Your task to perform on an android device: Open Amazon Image 0: 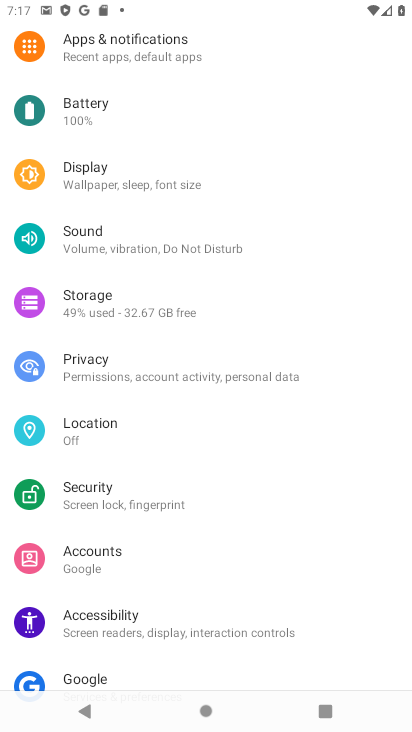
Step 0: press home button
Your task to perform on an android device: Open Amazon Image 1: 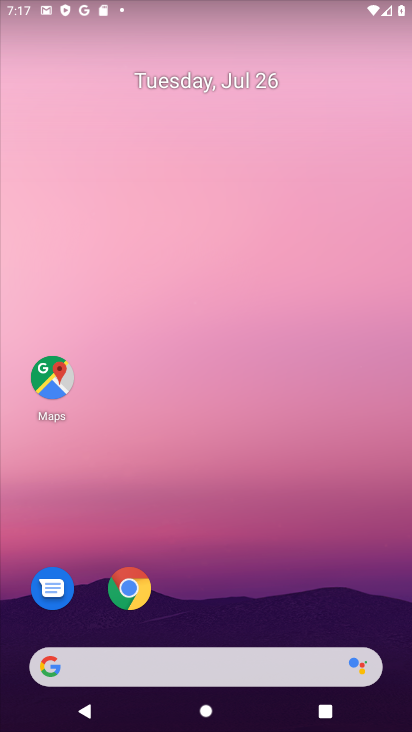
Step 1: drag from (205, 624) to (265, 98)
Your task to perform on an android device: Open Amazon Image 2: 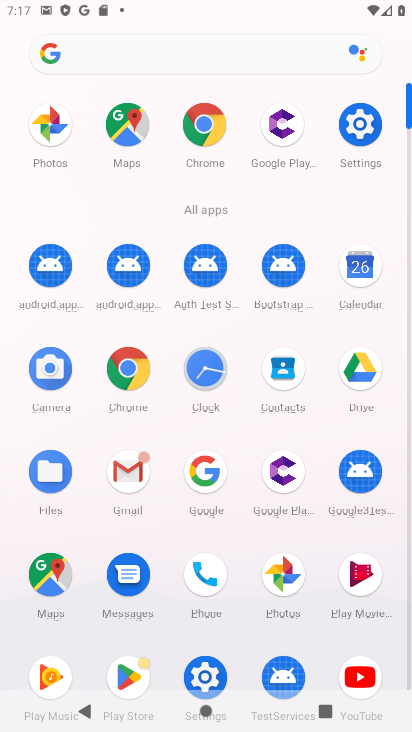
Step 2: click (138, 385)
Your task to perform on an android device: Open Amazon Image 3: 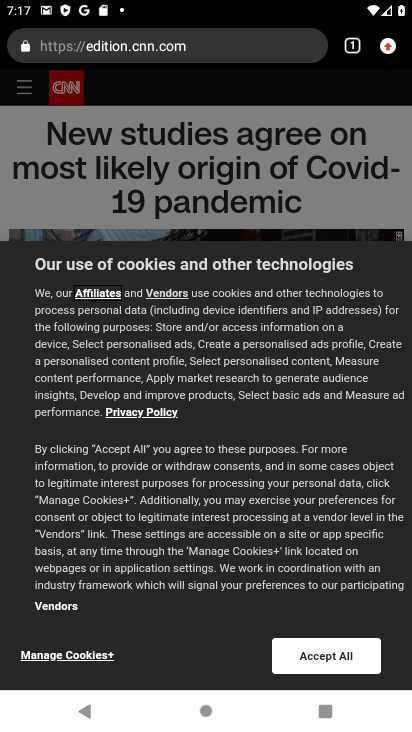
Step 3: click (210, 46)
Your task to perform on an android device: Open Amazon Image 4: 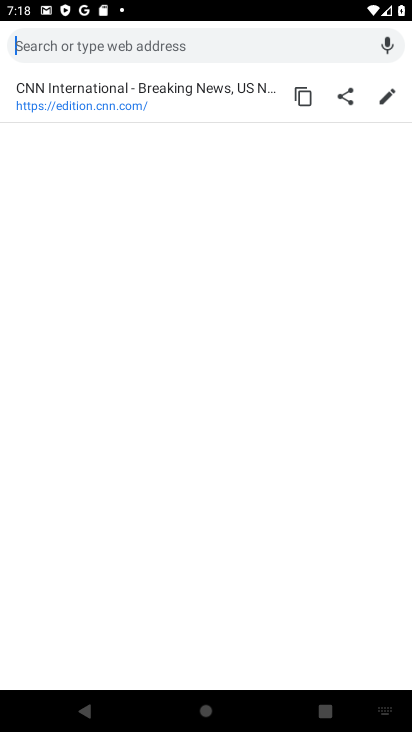
Step 4: type "amazon"
Your task to perform on an android device: Open Amazon Image 5: 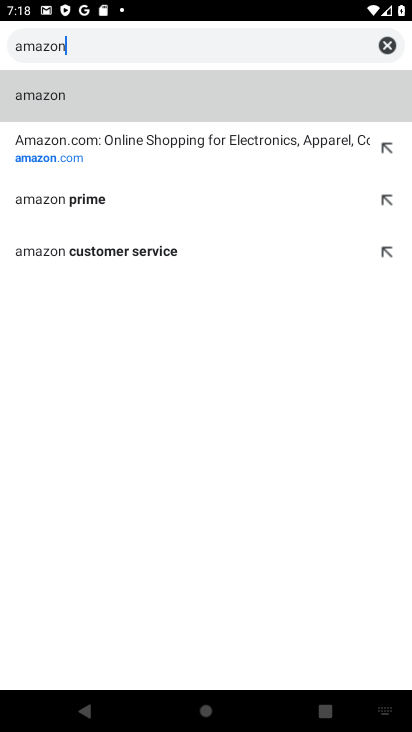
Step 5: click (157, 148)
Your task to perform on an android device: Open Amazon Image 6: 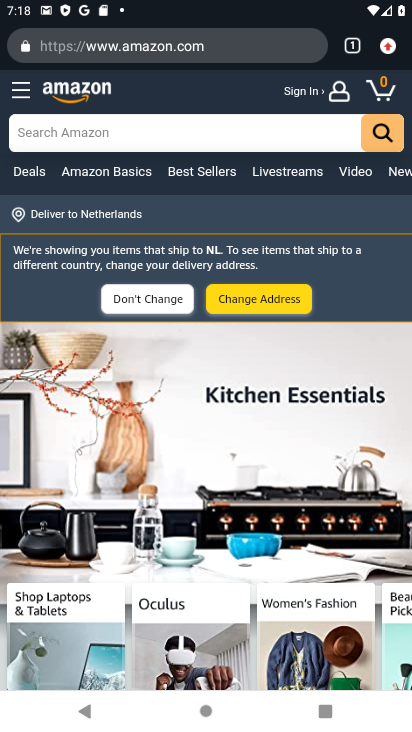
Step 6: task complete